Your task to perform on an android device: Go to accessibility settings Image 0: 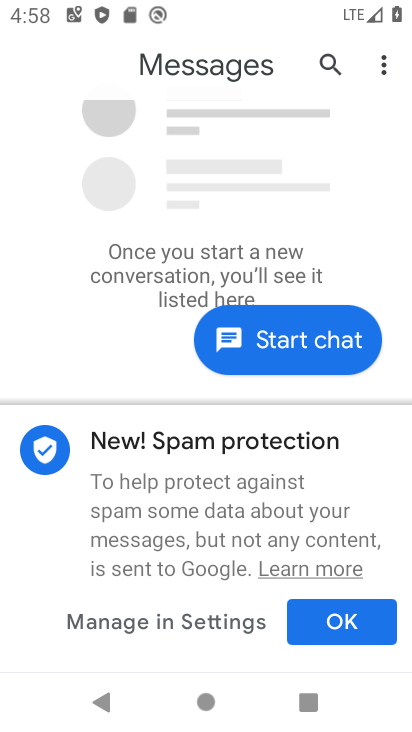
Step 0: press home button
Your task to perform on an android device: Go to accessibility settings Image 1: 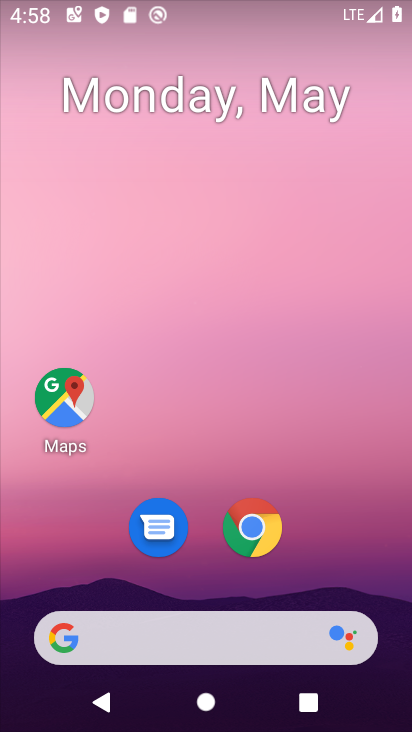
Step 1: drag from (402, 670) to (366, 105)
Your task to perform on an android device: Go to accessibility settings Image 2: 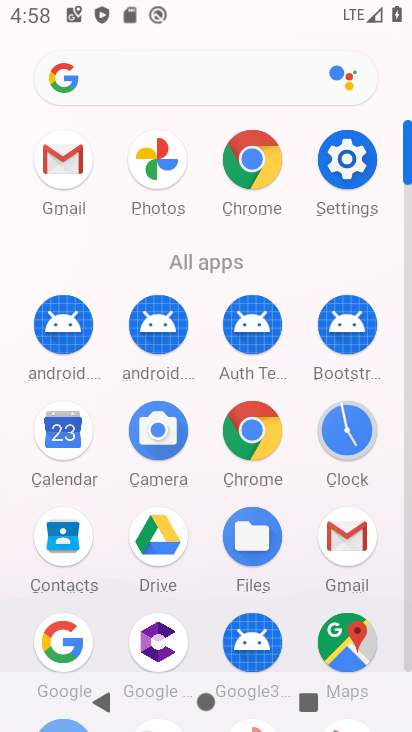
Step 2: click (344, 151)
Your task to perform on an android device: Go to accessibility settings Image 3: 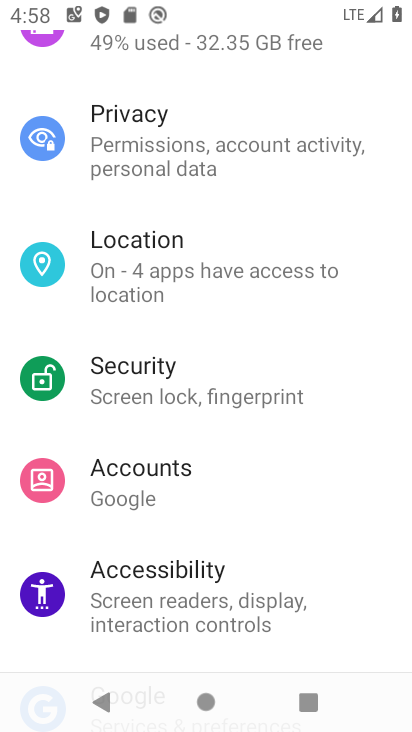
Step 3: click (147, 583)
Your task to perform on an android device: Go to accessibility settings Image 4: 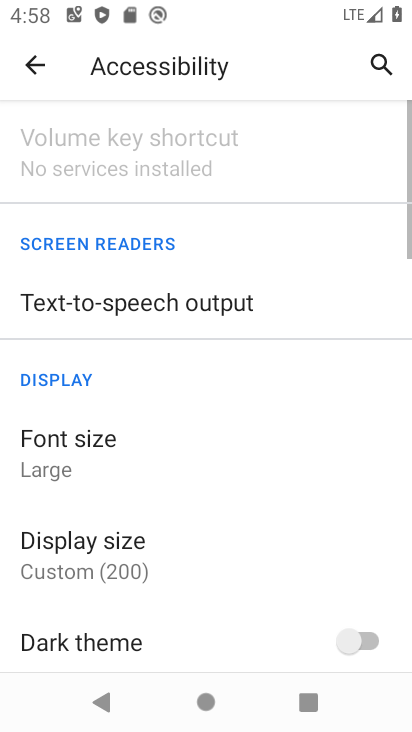
Step 4: task complete